Your task to perform on an android device: turn smart compose on in the gmail app Image 0: 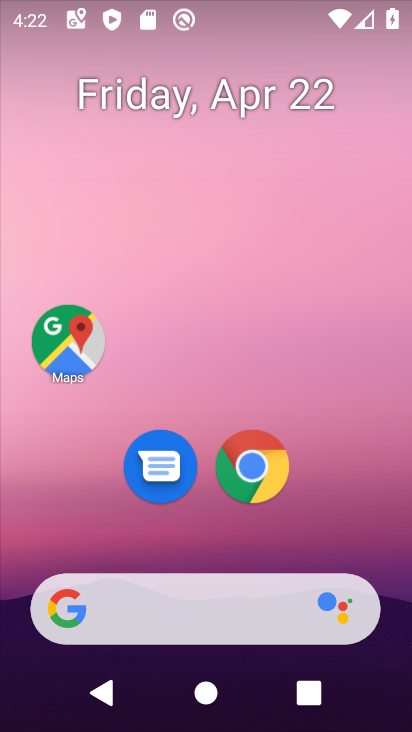
Step 0: drag from (397, 558) to (343, 253)
Your task to perform on an android device: turn smart compose on in the gmail app Image 1: 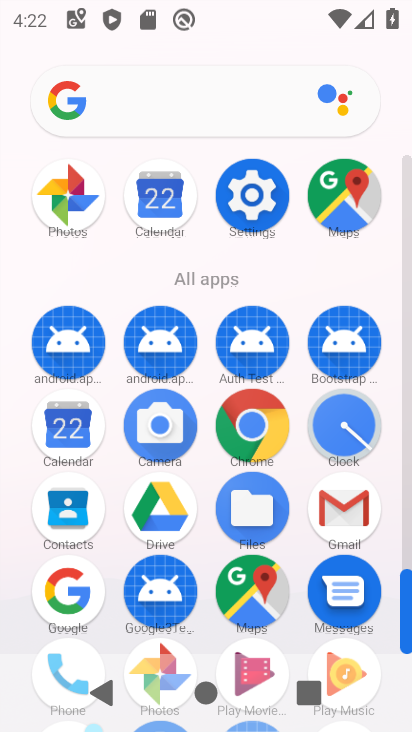
Step 1: click (354, 507)
Your task to perform on an android device: turn smart compose on in the gmail app Image 2: 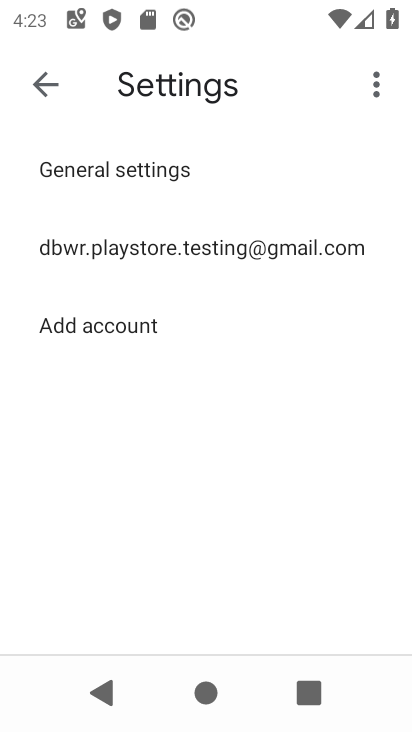
Step 2: click (252, 253)
Your task to perform on an android device: turn smart compose on in the gmail app Image 3: 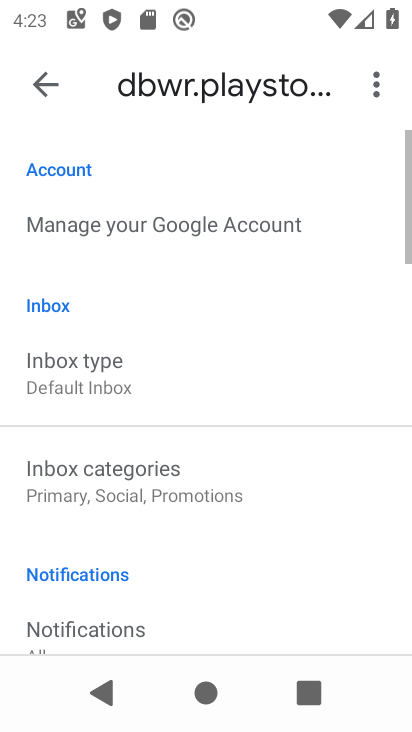
Step 3: task complete